Your task to perform on an android device: What's on my calendar tomorrow? Image 0: 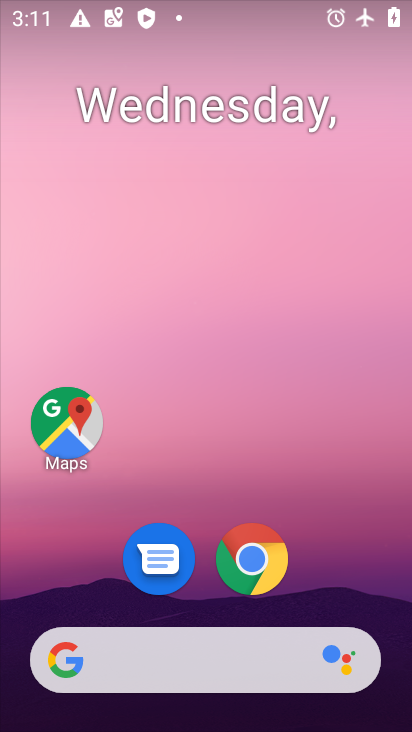
Step 0: drag from (221, 622) to (266, 52)
Your task to perform on an android device: What's on my calendar tomorrow? Image 1: 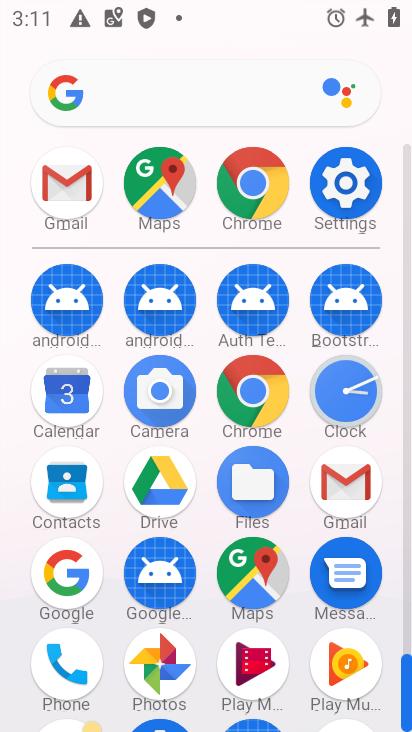
Step 1: click (71, 396)
Your task to perform on an android device: What's on my calendar tomorrow? Image 2: 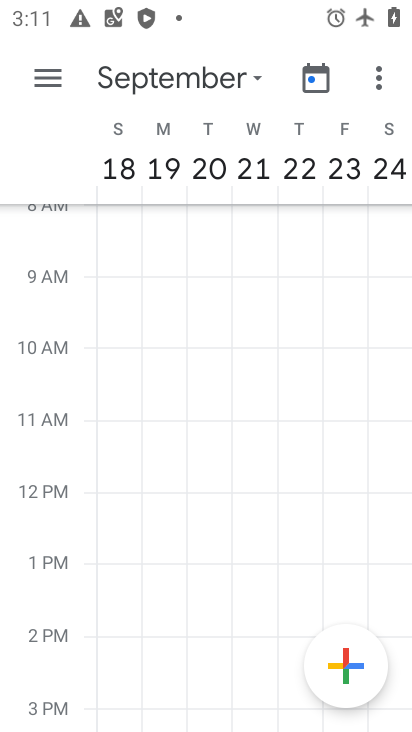
Step 2: click (255, 77)
Your task to perform on an android device: What's on my calendar tomorrow? Image 3: 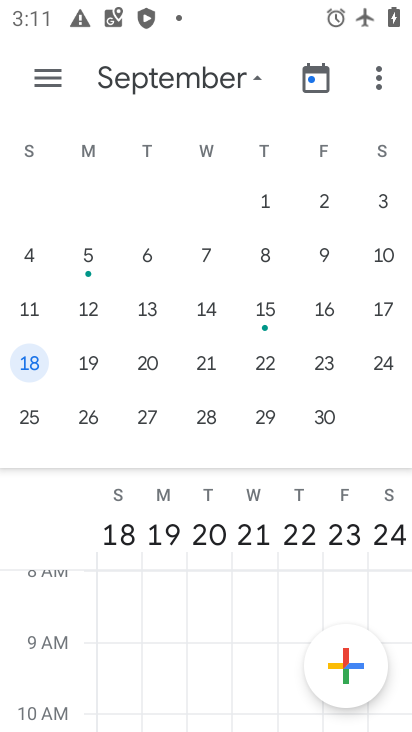
Step 3: drag from (26, 287) to (268, 283)
Your task to perform on an android device: What's on my calendar tomorrow? Image 4: 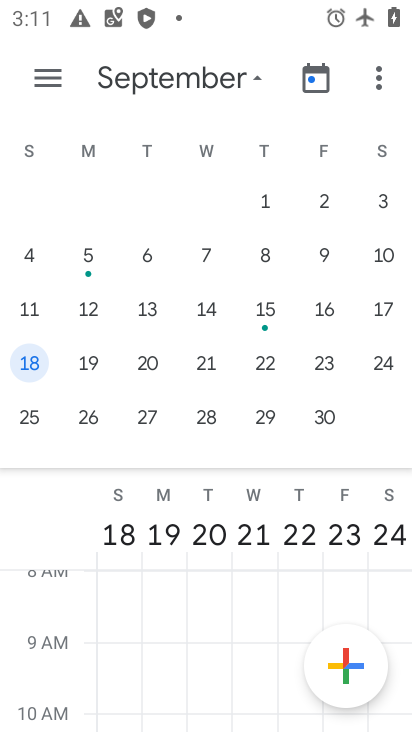
Step 4: drag from (97, 312) to (318, 297)
Your task to perform on an android device: What's on my calendar tomorrow? Image 5: 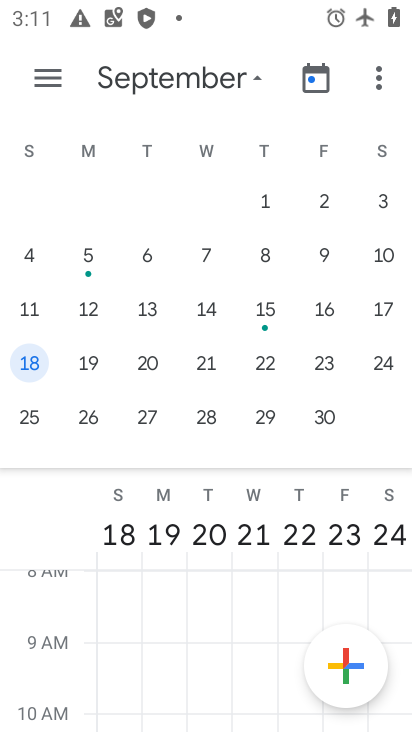
Step 5: drag from (76, 296) to (336, 291)
Your task to perform on an android device: What's on my calendar tomorrow? Image 6: 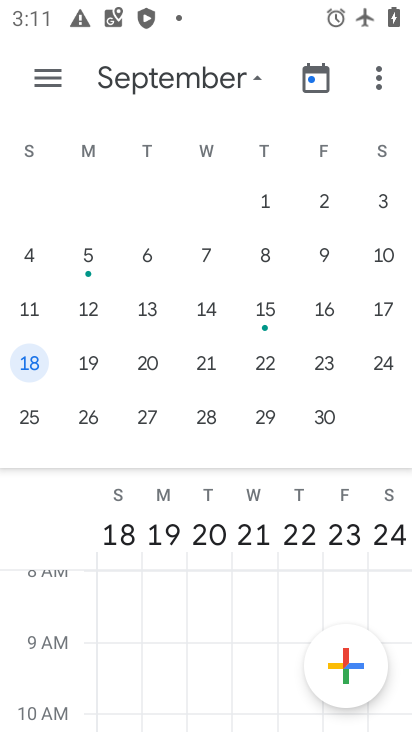
Step 6: drag from (89, 311) to (376, 272)
Your task to perform on an android device: What's on my calendar tomorrow? Image 7: 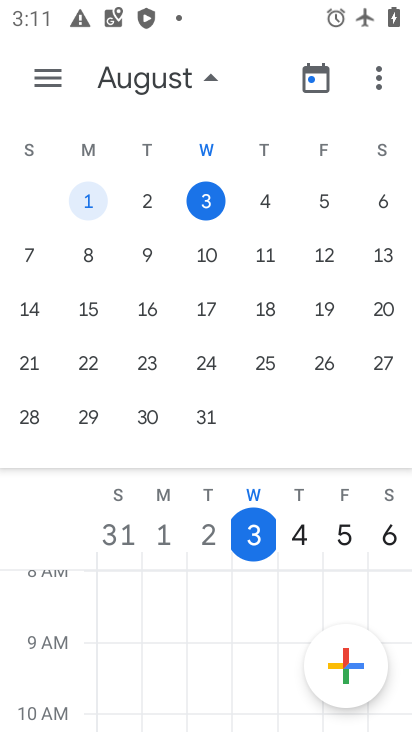
Step 7: click (262, 201)
Your task to perform on an android device: What's on my calendar tomorrow? Image 8: 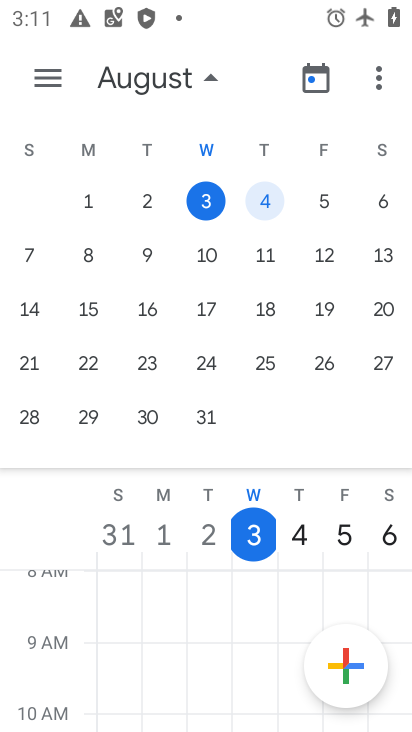
Step 8: click (304, 535)
Your task to perform on an android device: What's on my calendar tomorrow? Image 9: 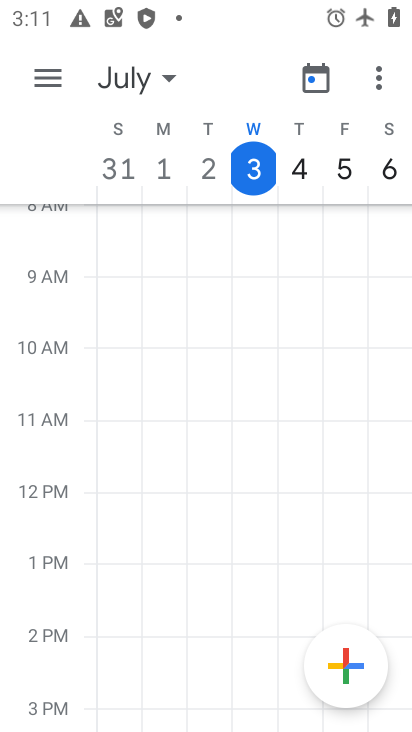
Step 9: click (298, 170)
Your task to perform on an android device: What's on my calendar tomorrow? Image 10: 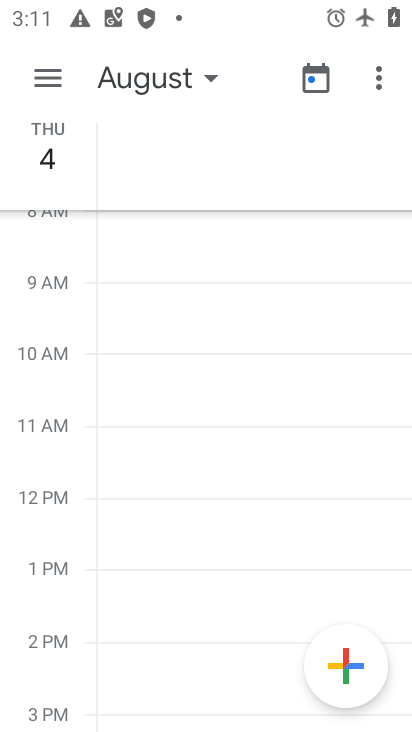
Step 10: task complete